Your task to perform on an android device: Open Google Chrome Image 0: 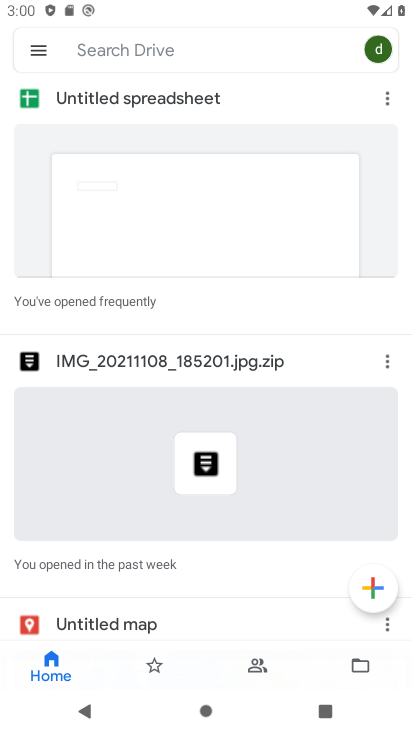
Step 0: press back button
Your task to perform on an android device: Open Google Chrome Image 1: 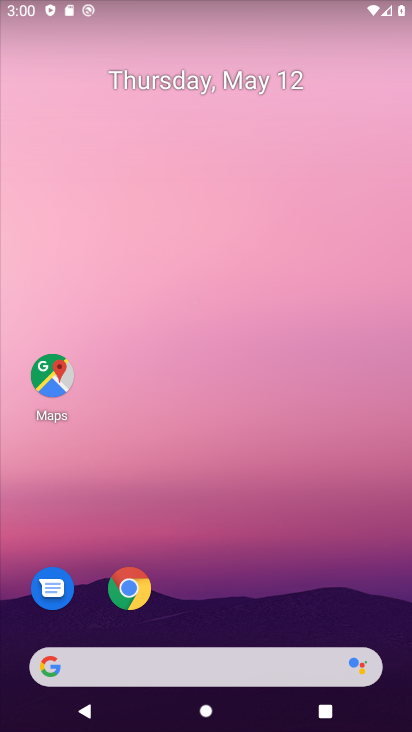
Step 1: drag from (221, 561) to (193, 62)
Your task to perform on an android device: Open Google Chrome Image 2: 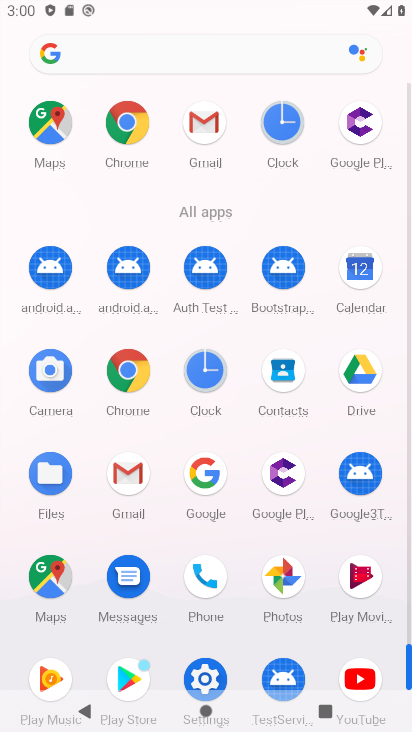
Step 2: drag from (9, 508) to (0, 224)
Your task to perform on an android device: Open Google Chrome Image 3: 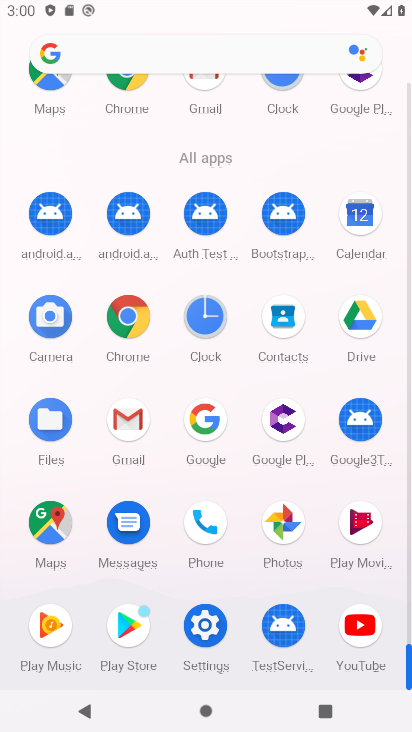
Step 3: click (130, 312)
Your task to perform on an android device: Open Google Chrome Image 4: 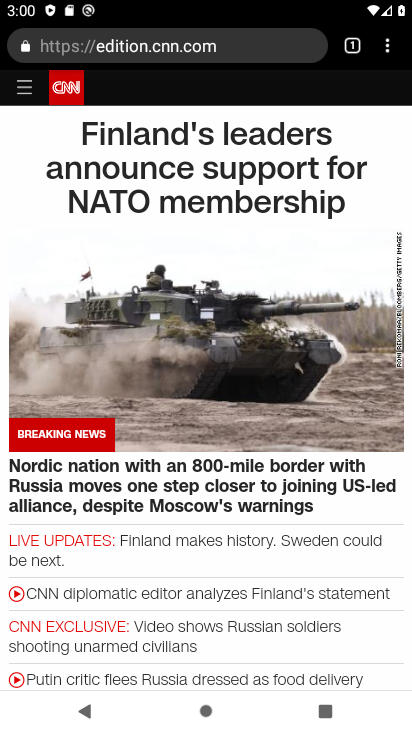
Step 4: task complete